Your task to perform on an android device: allow cookies in the chrome app Image 0: 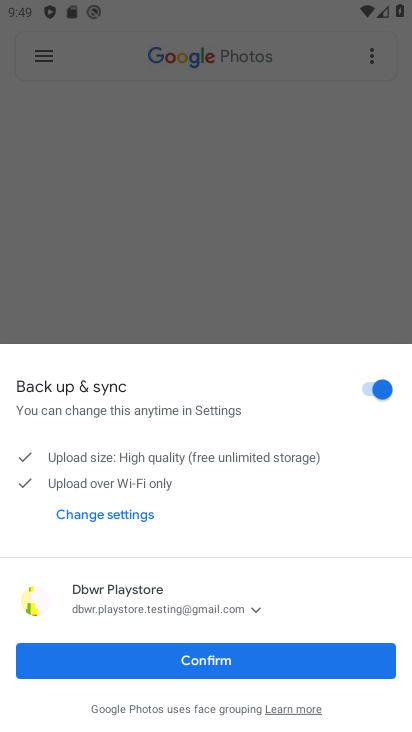
Step 0: press home button
Your task to perform on an android device: allow cookies in the chrome app Image 1: 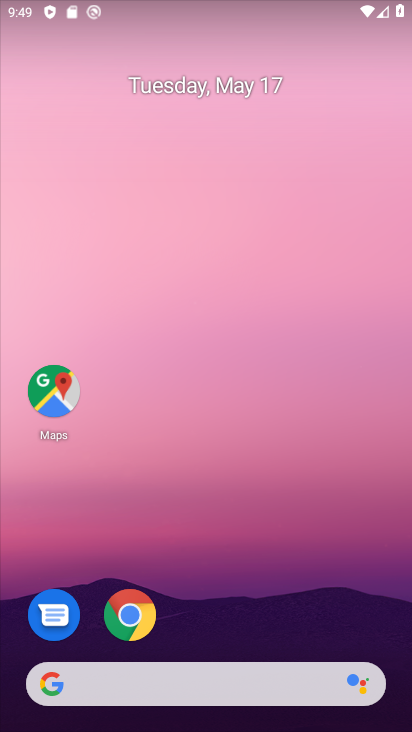
Step 1: click (137, 618)
Your task to perform on an android device: allow cookies in the chrome app Image 2: 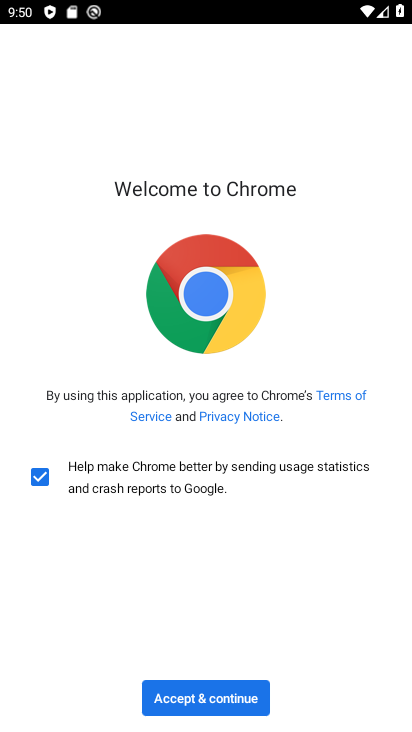
Step 2: click (193, 700)
Your task to perform on an android device: allow cookies in the chrome app Image 3: 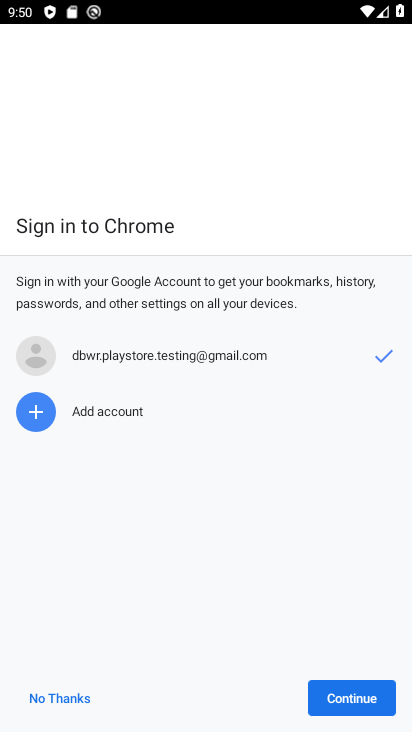
Step 3: click (333, 691)
Your task to perform on an android device: allow cookies in the chrome app Image 4: 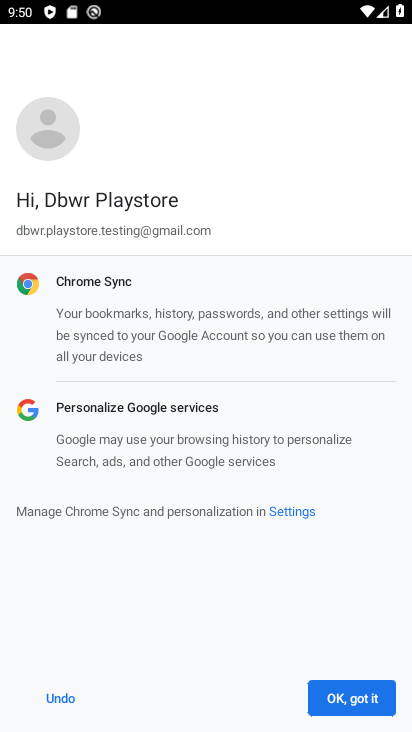
Step 4: click (354, 702)
Your task to perform on an android device: allow cookies in the chrome app Image 5: 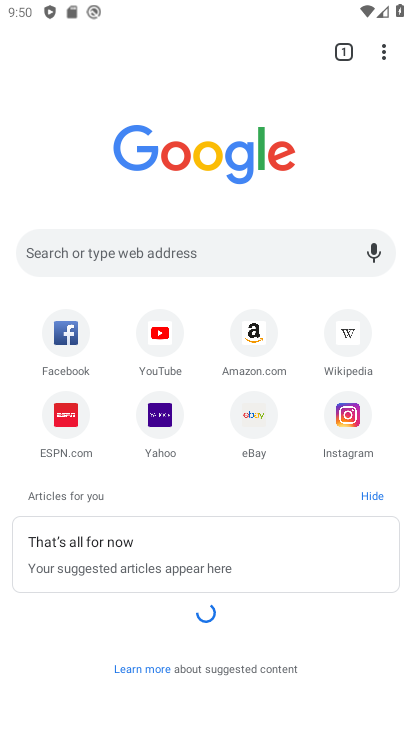
Step 5: drag from (379, 57) to (275, 436)
Your task to perform on an android device: allow cookies in the chrome app Image 6: 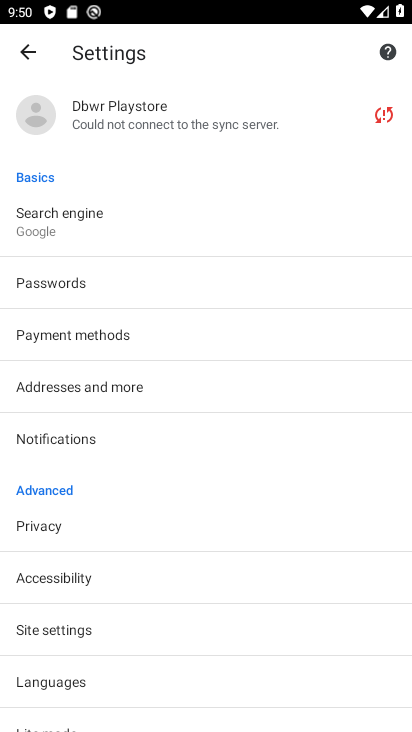
Step 6: click (64, 638)
Your task to perform on an android device: allow cookies in the chrome app Image 7: 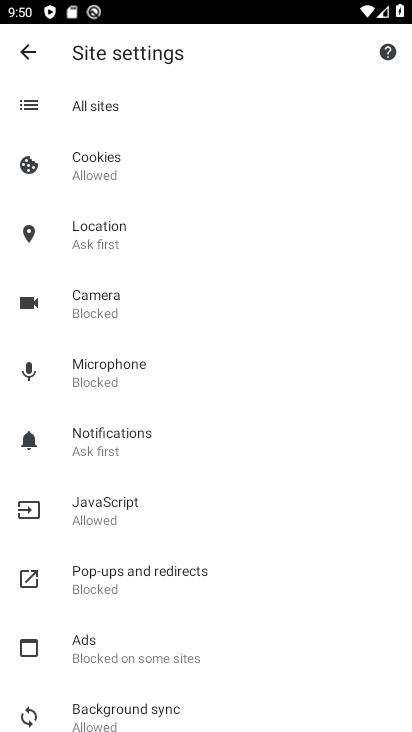
Step 7: click (131, 162)
Your task to perform on an android device: allow cookies in the chrome app Image 8: 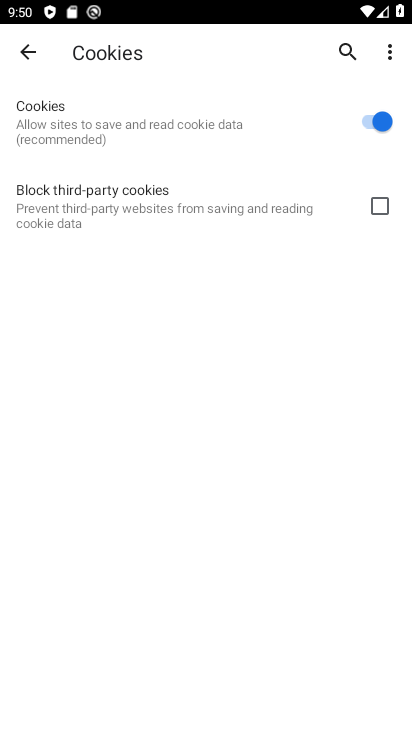
Step 8: task complete